Your task to perform on an android device: check out phone information Image 0: 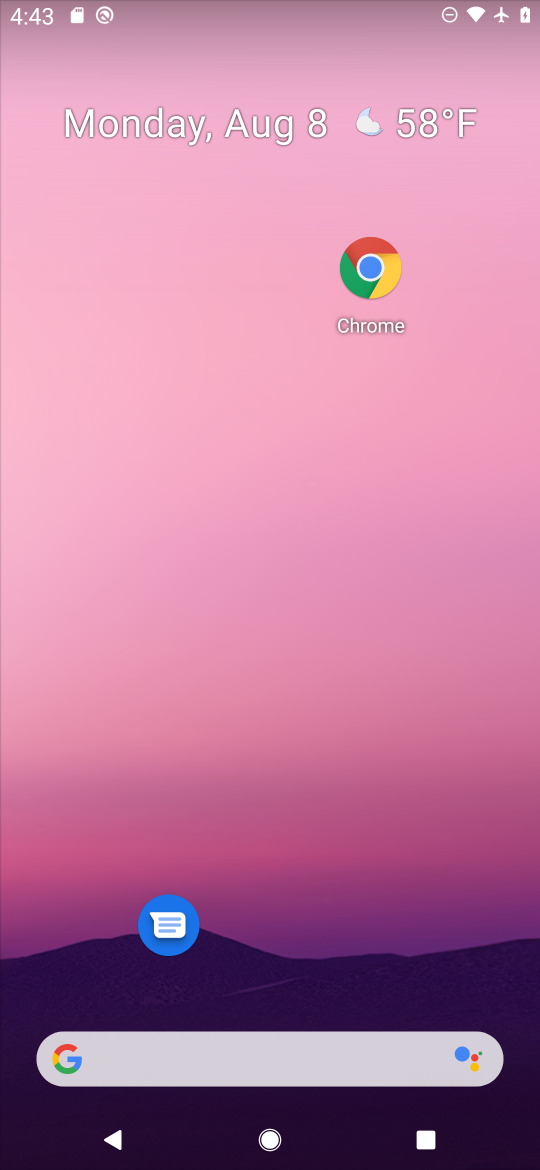
Step 0: drag from (305, 982) to (319, 86)
Your task to perform on an android device: check out phone information Image 1: 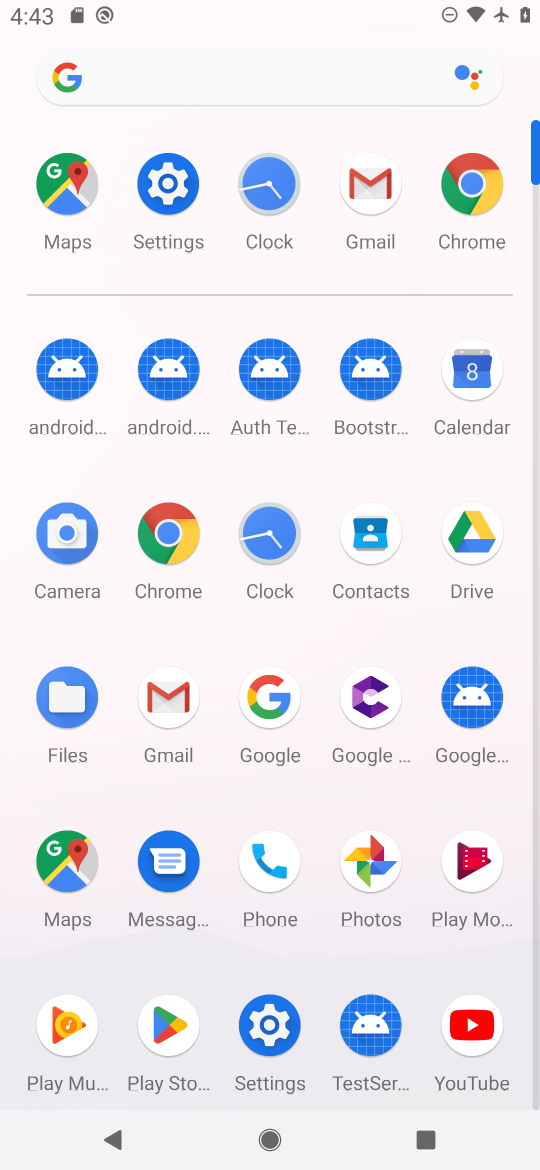
Step 1: click (175, 174)
Your task to perform on an android device: check out phone information Image 2: 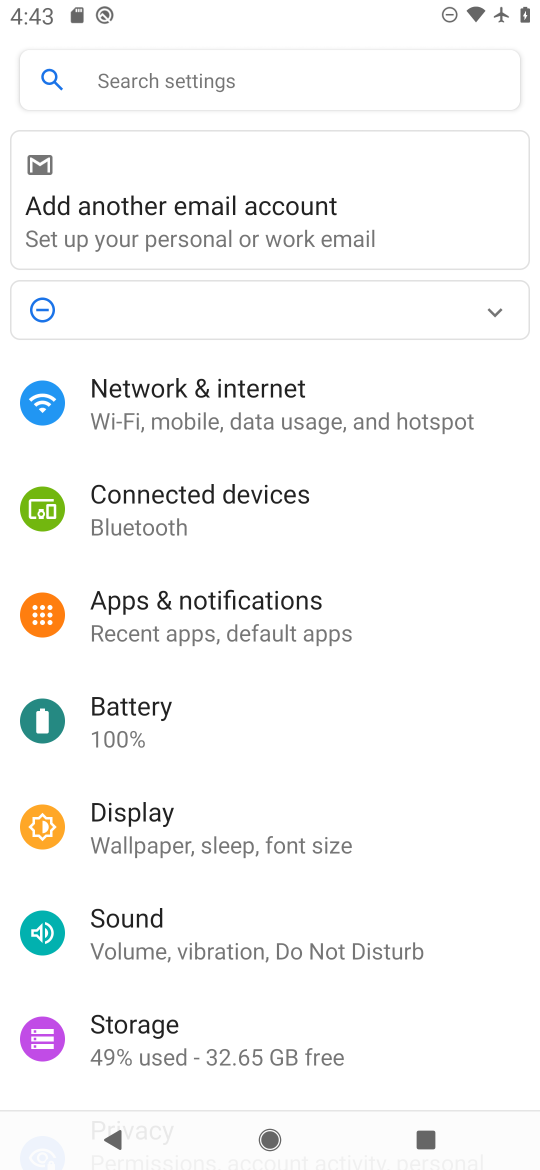
Step 2: drag from (123, 743) to (148, 590)
Your task to perform on an android device: check out phone information Image 3: 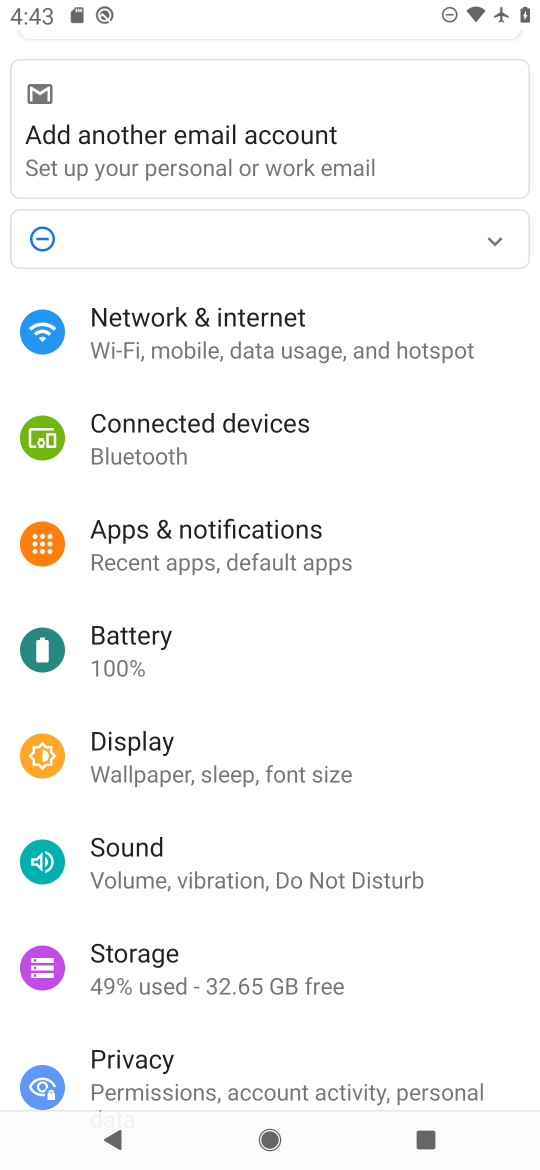
Step 3: drag from (160, 1025) to (165, 609)
Your task to perform on an android device: check out phone information Image 4: 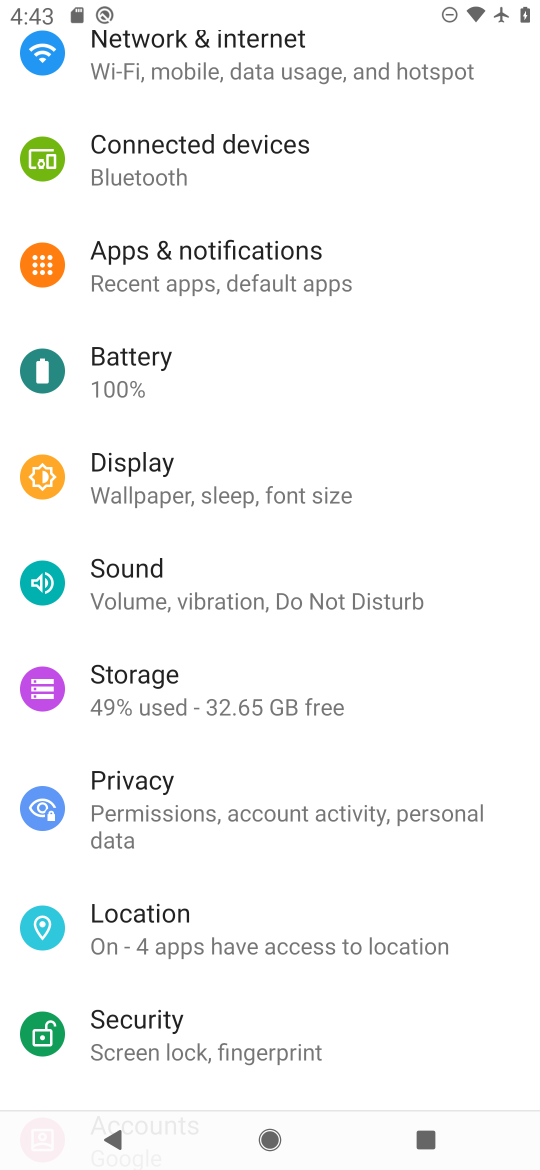
Step 4: drag from (274, 1016) to (275, 547)
Your task to perform on an android device: check out phone information Image 5: 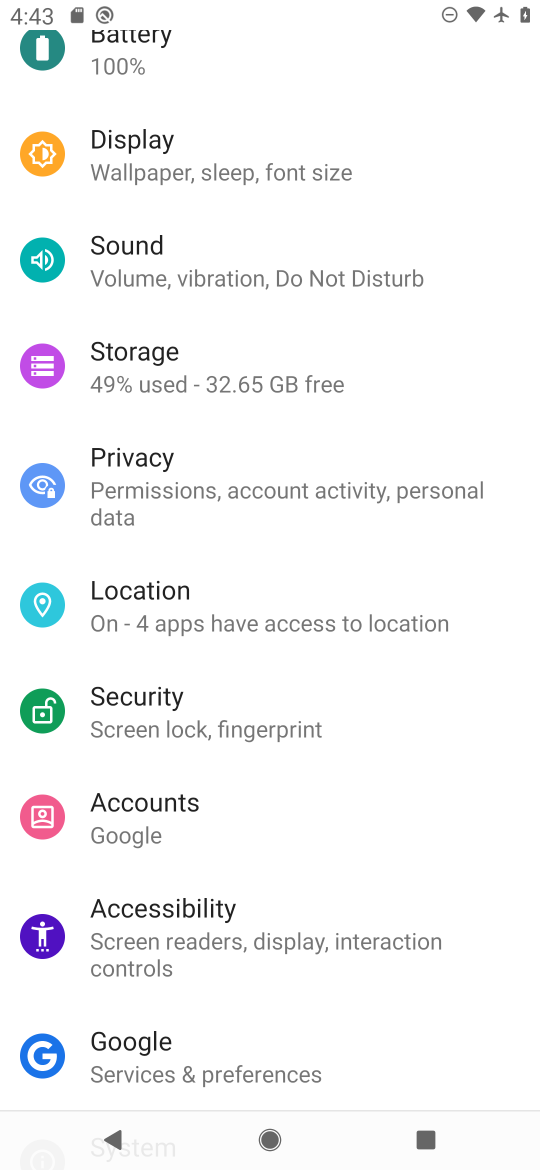
Step 5: drag from (193, 1036) to (203, 615)
Your task to perform on an android device: check out phone information Image 6: 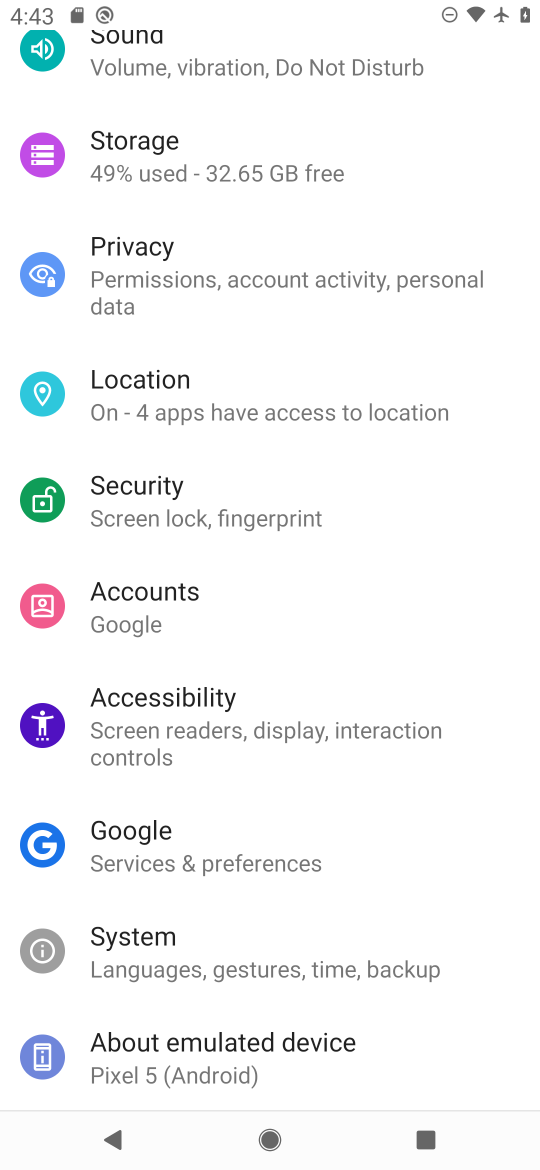
Step 6: drag from (247, 1073) to (262, 652)
Your task to perform on an android device: check out phone information Image 7: 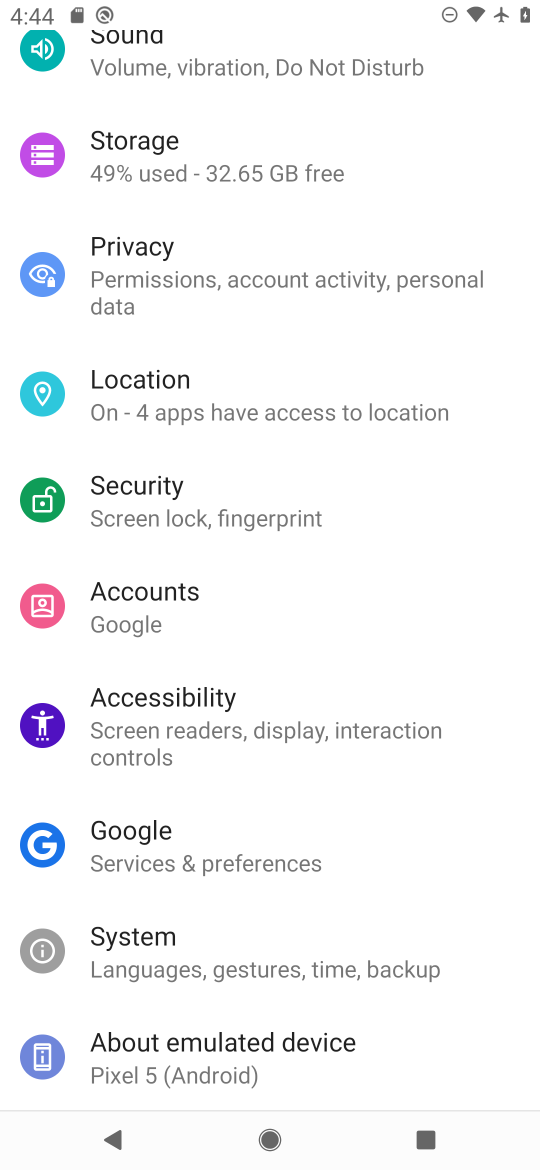
Step 7: drag from (200, 1050) to (180, 613)
Your task to perform on an android device: check out phone information Image 8: 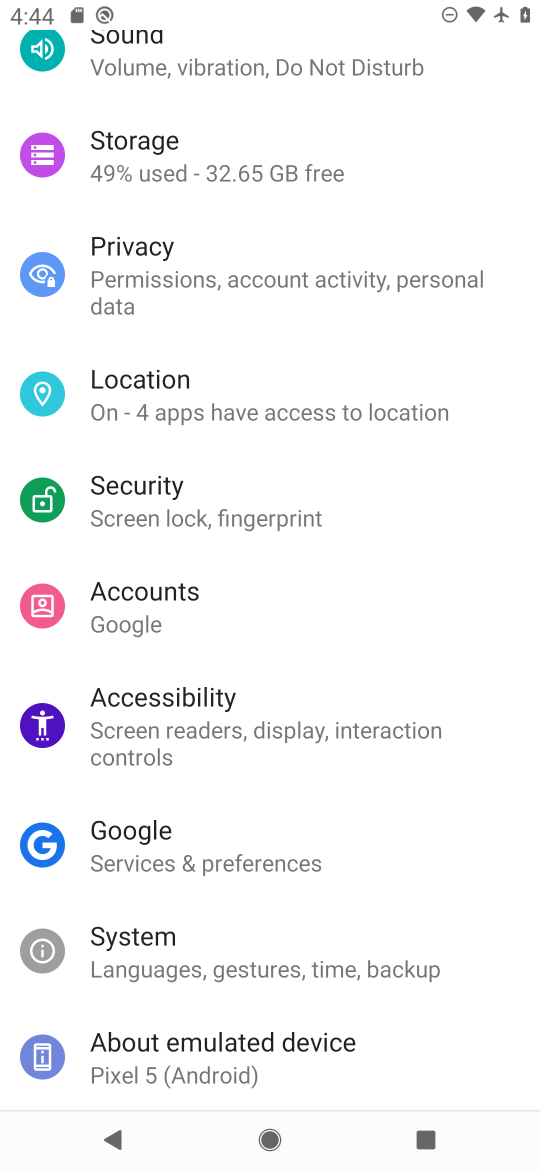
Step 8: click (248, 1042)
Your task to perform on an android device: check out phone information Image 9: 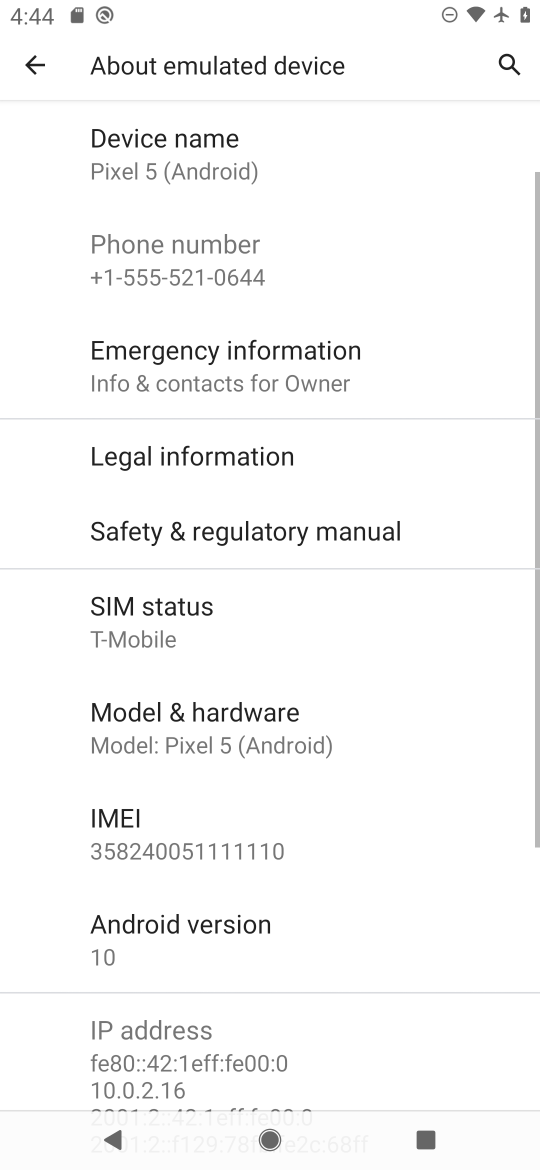
Step 9: task complete